Your task to perform on an android device: Go to Yahoo.com Image 0: 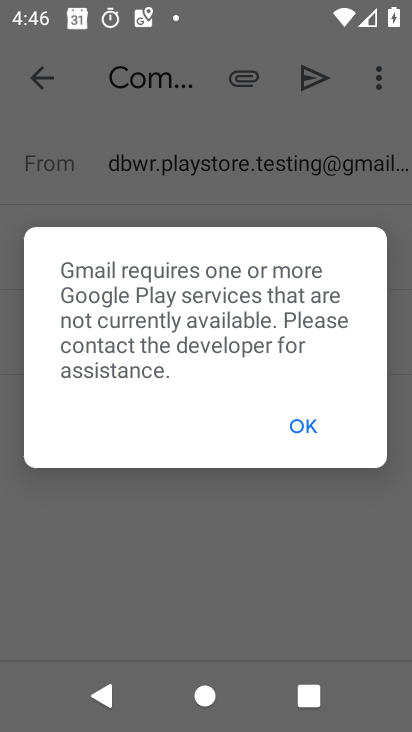
Step 0: press back button
Your task to perform on an android device: Go to Yahoo.com Image 1: 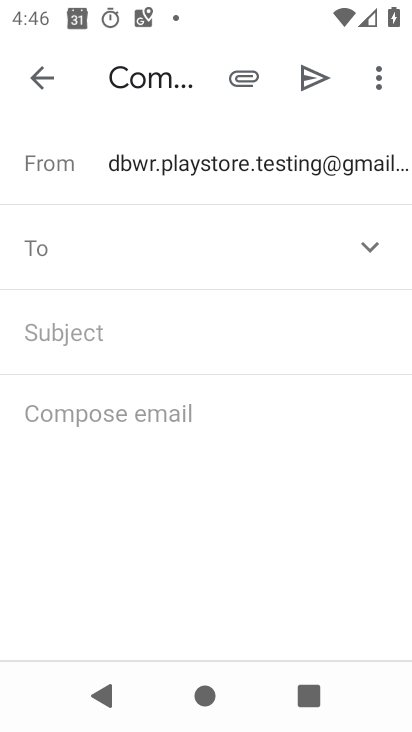
Step 1: press home button
Your task to perform on an android device: Go to Yahoo.com Image 2: 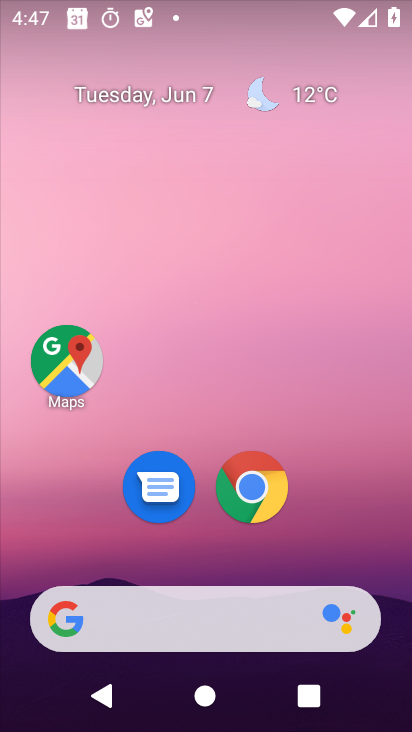
Step 2: click (266, 492)
Your task to perform on an android device: Go to Yahoo.com Image 3: 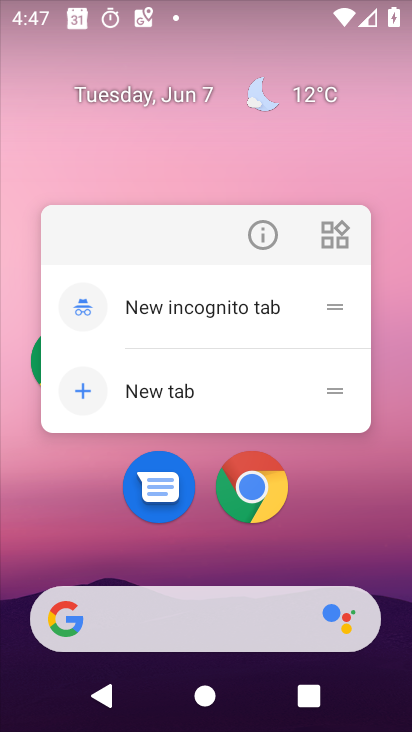
Step 3: click (234, 479)
Your task to perform on an android device: Go to Yahoo.com Image 4: 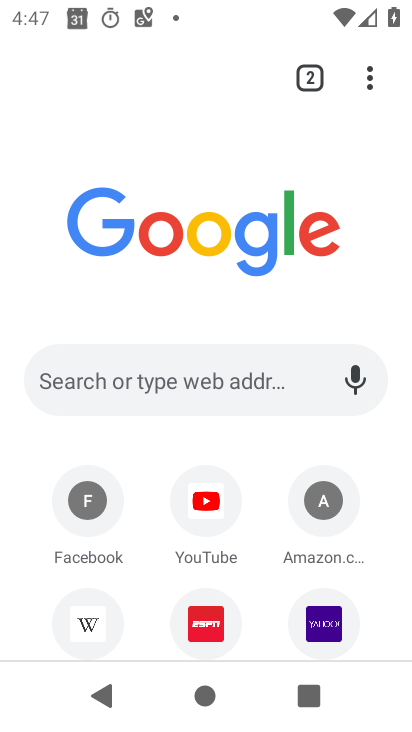
Step 4: click (328, 627)
Your task to perform on an android device: Go to Yahoo.com Image 5: 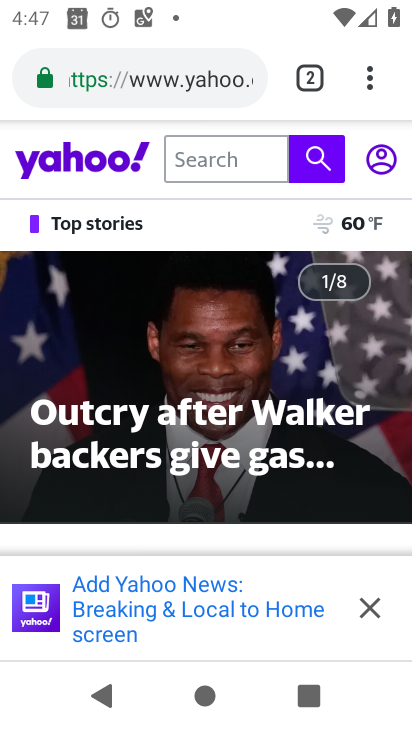
Step 5: task complete